Your task to perform on an android device: Open privacy settings Image 0: 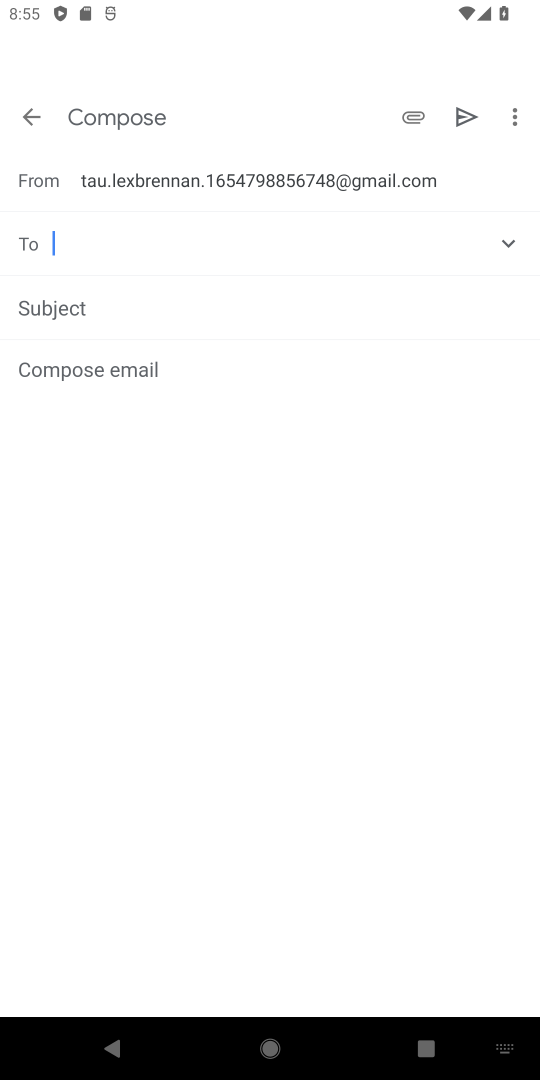
Step 0: press back button
Your task to perform on an android device: Open privacy settings Image 1: 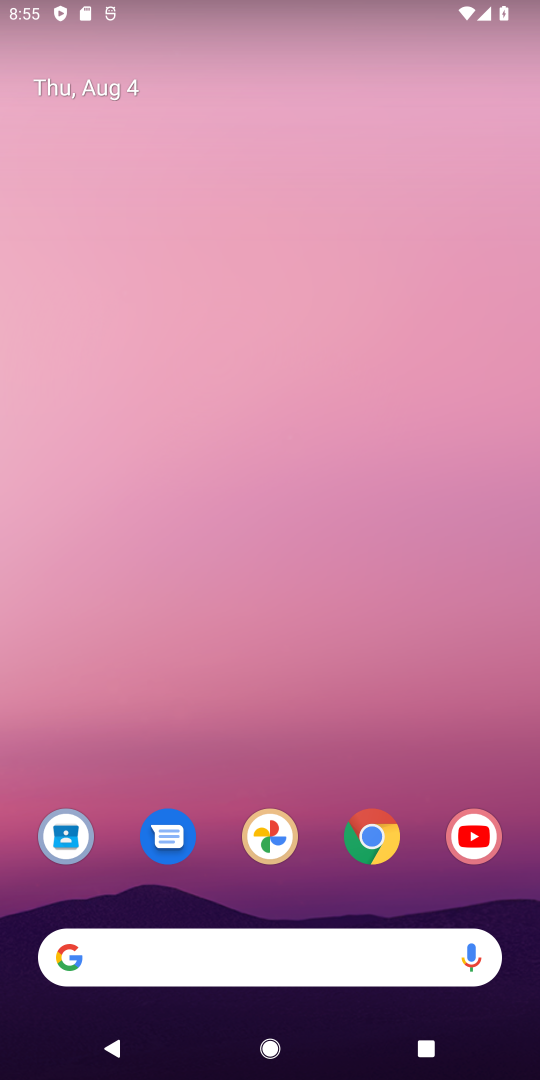
Step 1: click (384, 837)
Your task to perform on an android device: Open privacy settings Image 2: 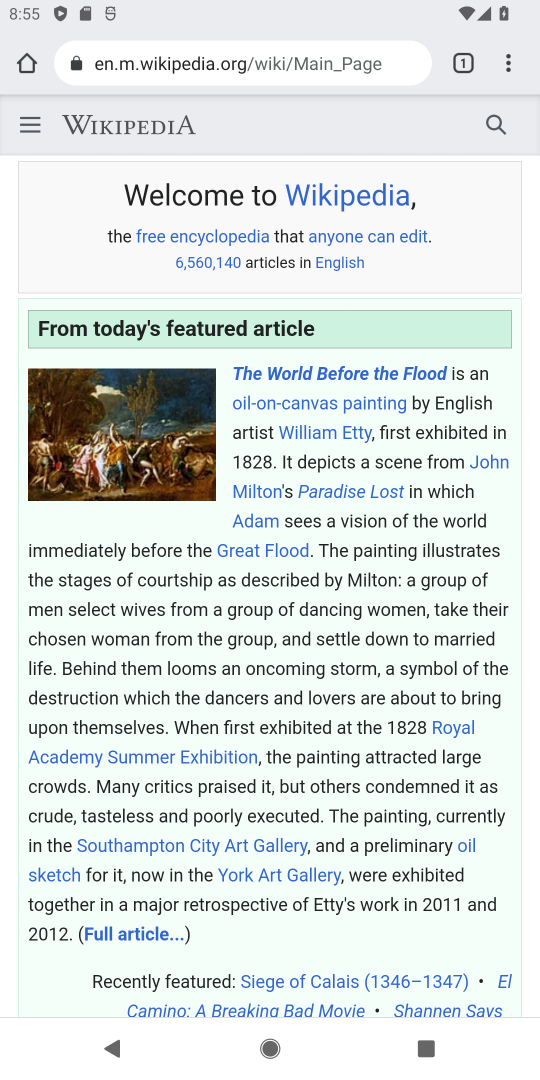
Step 2: drag from (512, 48) to (338, 745)
Your task to perform on an android device: Open privacy settings Image 3: 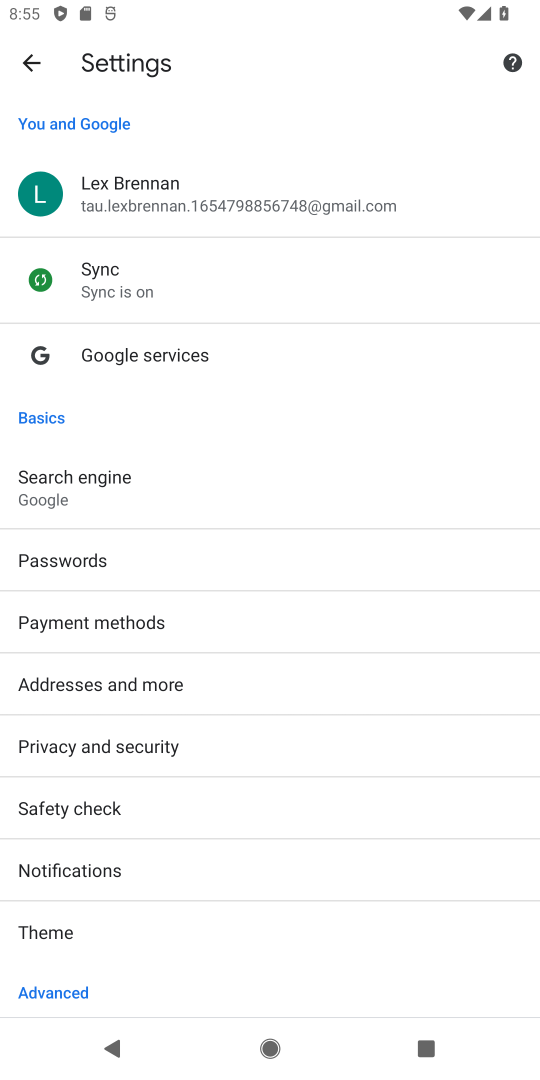
Step 3: click (139, 747)
Your task to perform on an android device: Open privacy settings Image 4: 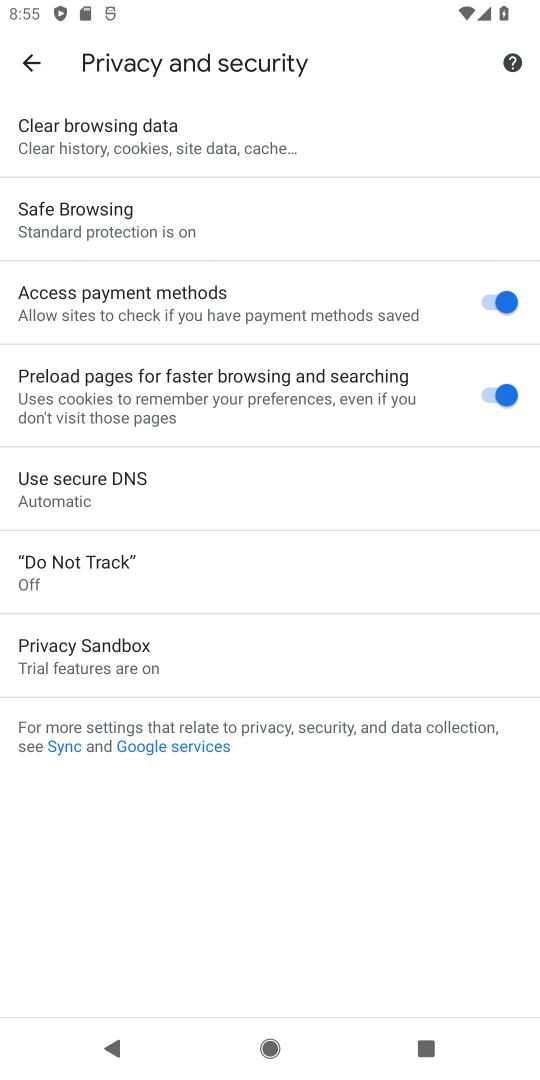
Step 4: task complete